Your task to perform on an android device: check data usage Image 0: 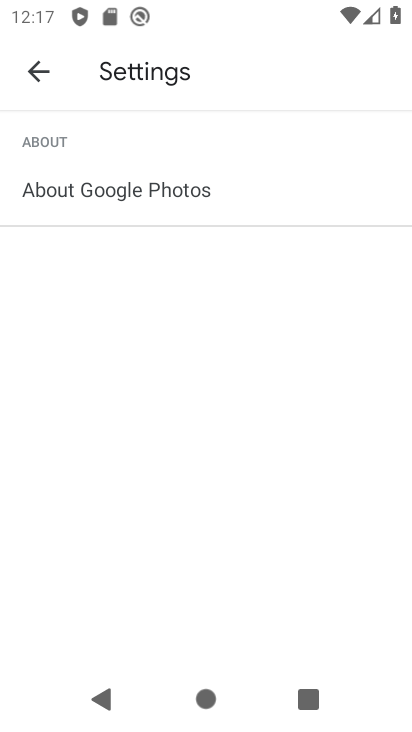
Step 0: drag from (153, 12) to (292, 595)
Your task to perform on an android device: check data usage Image 1: 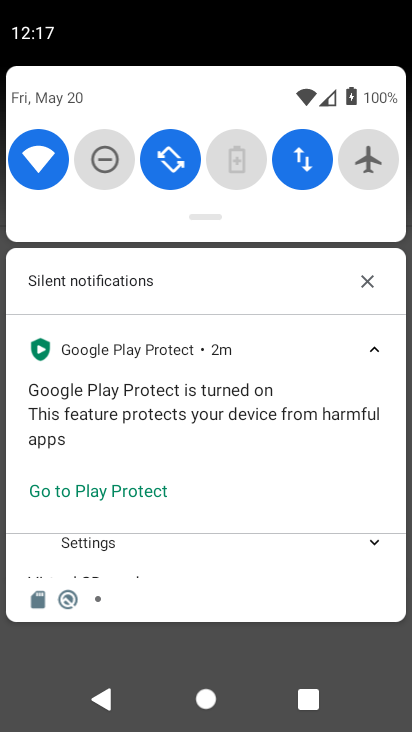
Step 1: click (290, 166)
Your task to perform on an android device: check data usage Image 2: 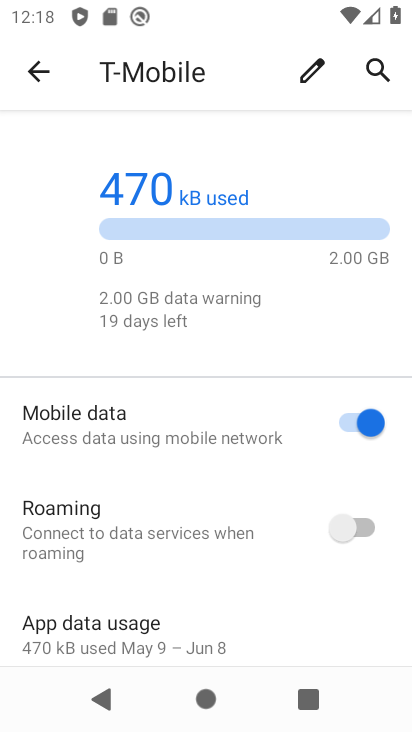
Step 2: task complete